Your task to perform on an android device: make emails show in primary in the gmail app Image 0: 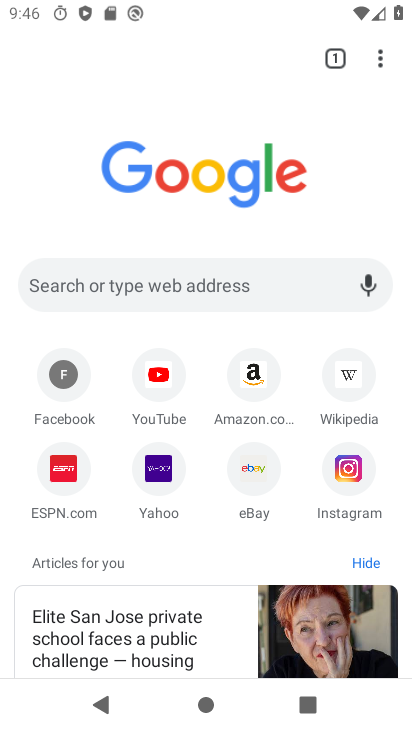
Step 0: press home button
Your task to perform on an android device: make emails show in primary in the gmail app Image 1: 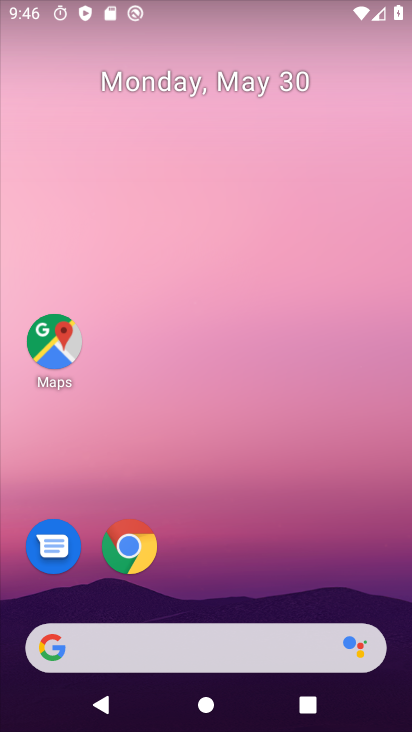
Step 1: drag from (186, 585) to (315, 50)
Your task to perform on an android device: make emails show in primary in the gmail app Image 2: 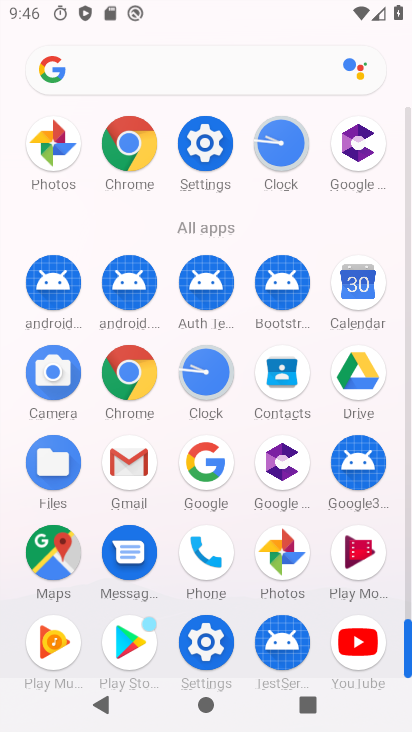
Step 2: click (146, 478)
Your task to perform on an android device: make emails show in primary in the gmail app Image 3: 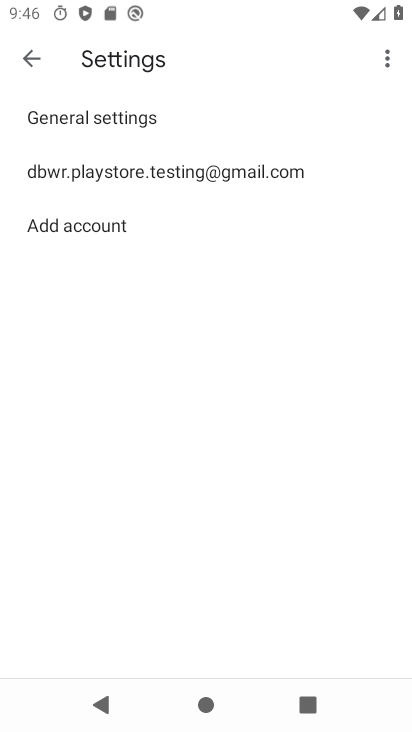
Step 3: click (237, 171)
Your task to perform on an android device: make emails show in primary in the gmail app Image 4: 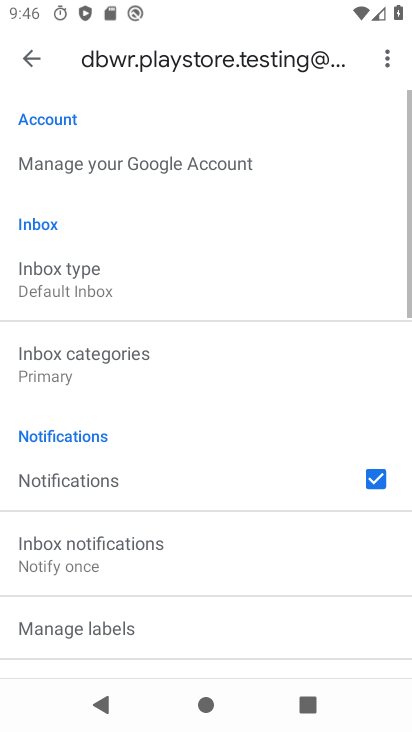
Step 4: drag from (109, 570) to (217, 163)
Your task to perform on an android device: make emails show in primary in the gmail app Image 5: 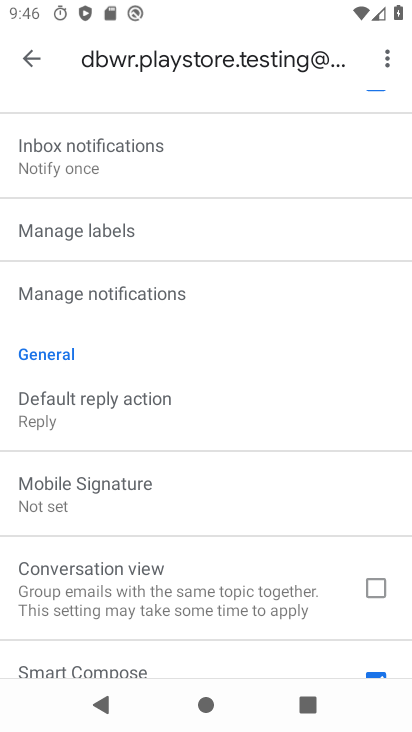
Step 5: drag from (217, 513) to (277, 205)
Your task to perform on an android device: make emails show in primary in the gmail app Image 6: 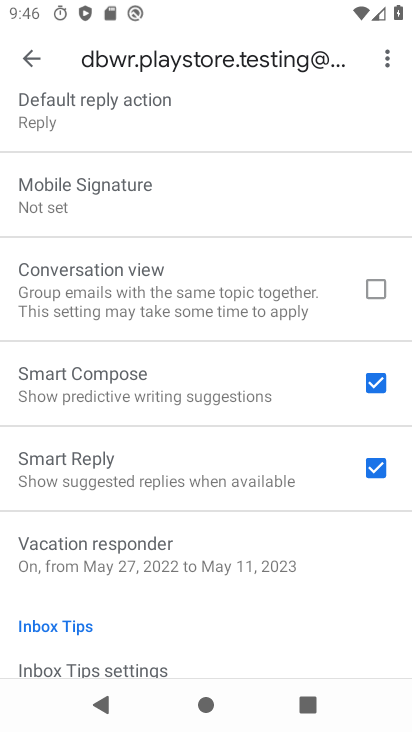
Step 6: drag from (107, 568) to (137, 637)
Your task to perform on an android device: make emails show in primary in the gmail app Image 7: 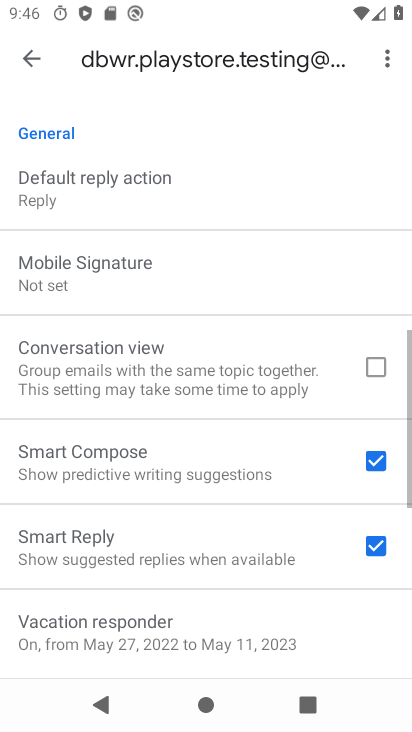
Step 7: drag from (201, 181) to (196, 664)
Your task to perform on an android device: make emails show in primary in the gmail app Image 8: 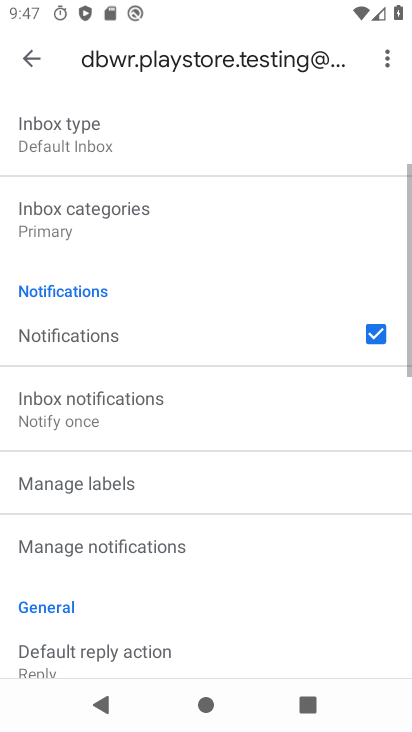
Step 8: drag from (199, 194) to (192, 528)
Your task to perform on an android device: make emails show in primary in the gmail app Image 9: 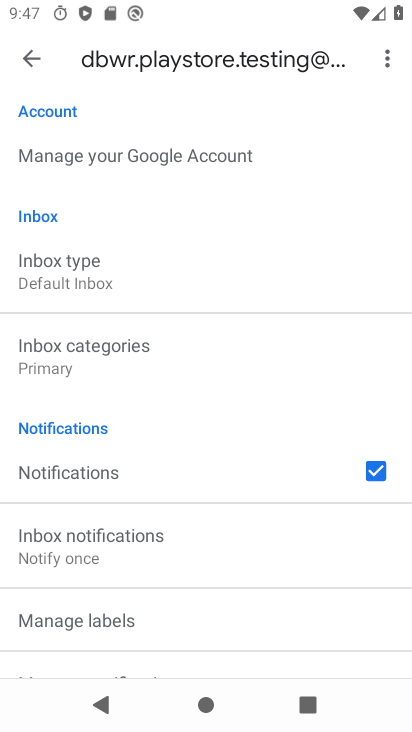
Step 9: click (181, 353)
Your task to perform on an android device: make emails show in primary in the gmail app Image 10: 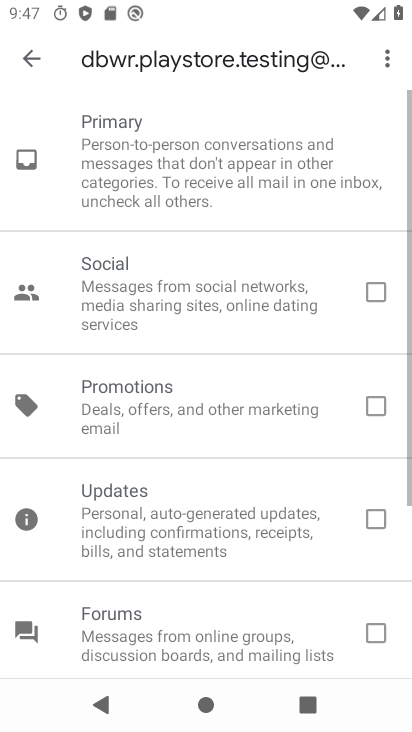
Step 10: drag from (121, 596) to (253, 107)
Your task to perform on an android device: make emails show in primary in the gmail app Image 11: 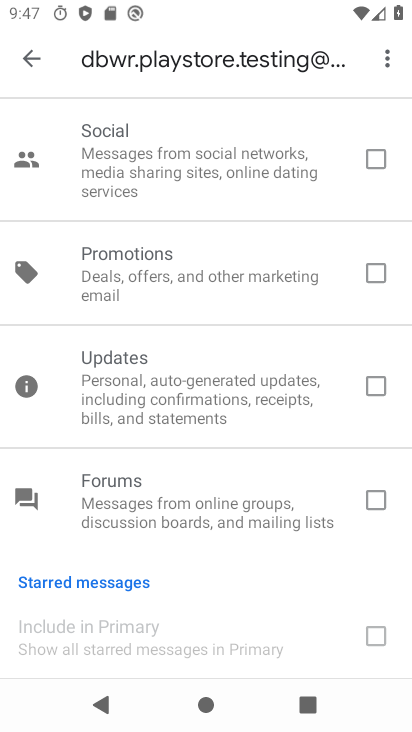
Step 11: click (381, 159)
Your task to perform on an android device: make emails show in primary in the gmail app Image 12: 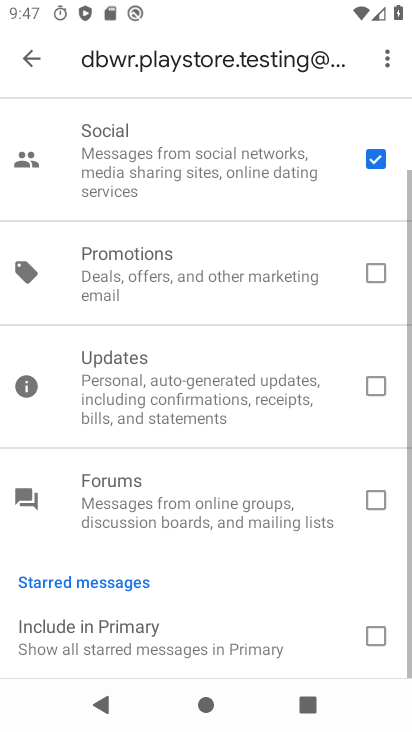
Step 12: click (379, 284)
Your task to perform on an android device: make emails show in primary in the gmail app Image 13: 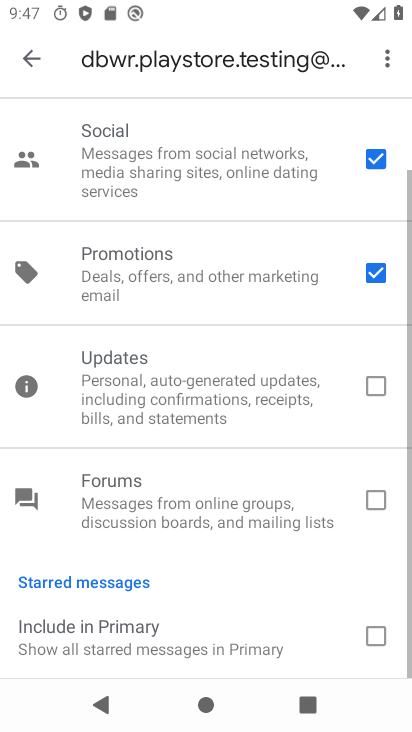
Step 13: click (377, 391)
Your task to perform on an android device: make emails show in primary in the gmail app Image 14: 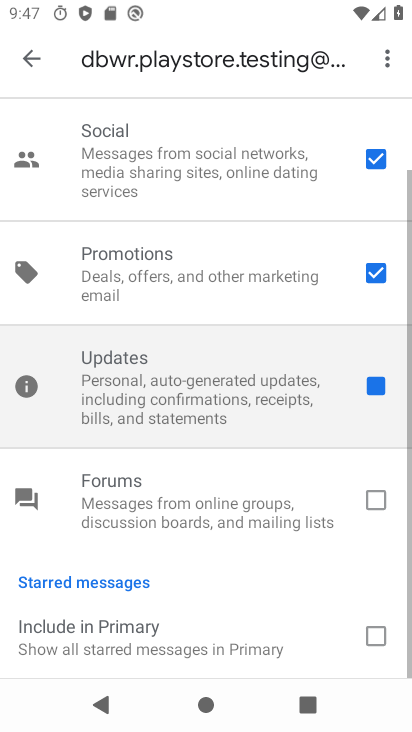
Step 14: click (375, 501)
Your task to perform on an android device: make emails show in primary in the gmail app Image 15: 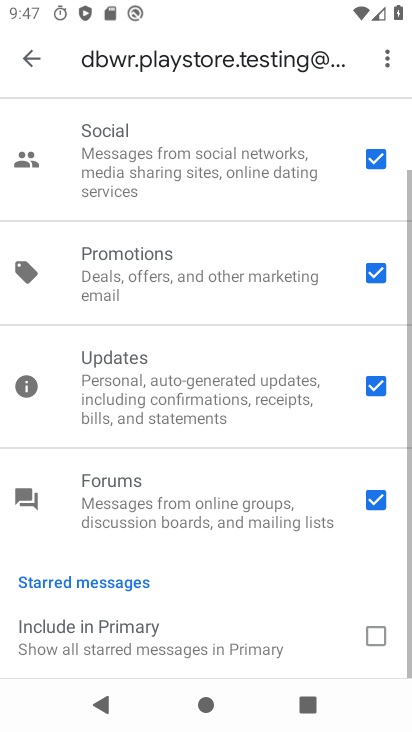
Step 15: click (381, 637)
Your task to perform on an android device: make emails show in primary in the gmail app Image 16: 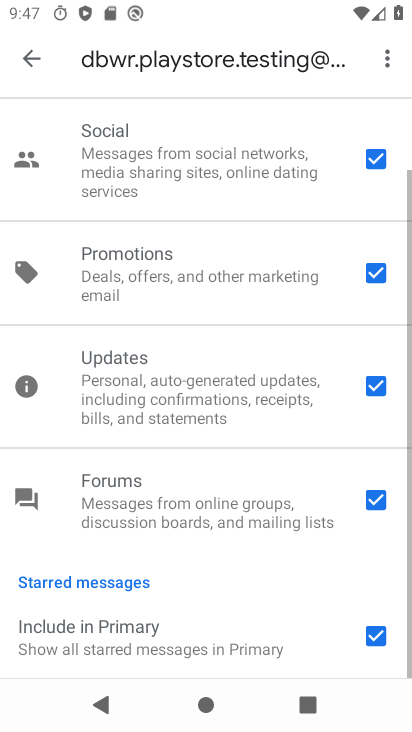
Step 16: task complete